Your task to perform on an android device: check battery use Image 0: 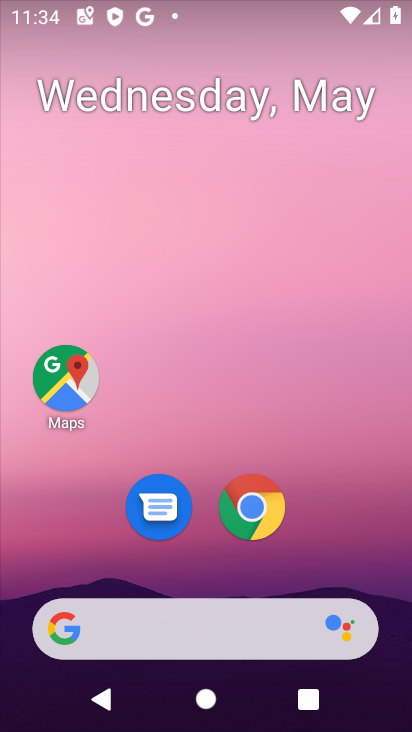
Step 0: press home button
Your task to perform on an android device: check battery use Image 1: 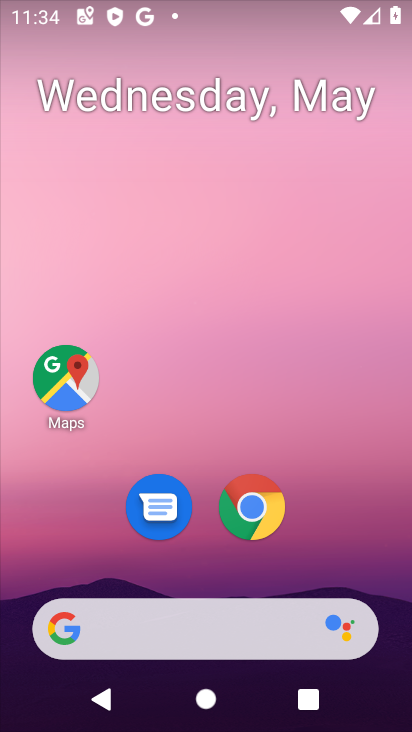
Step 1: drag from (375, 561) to (325, 133)
Your task to perform on an android device: check battery use Image 2: 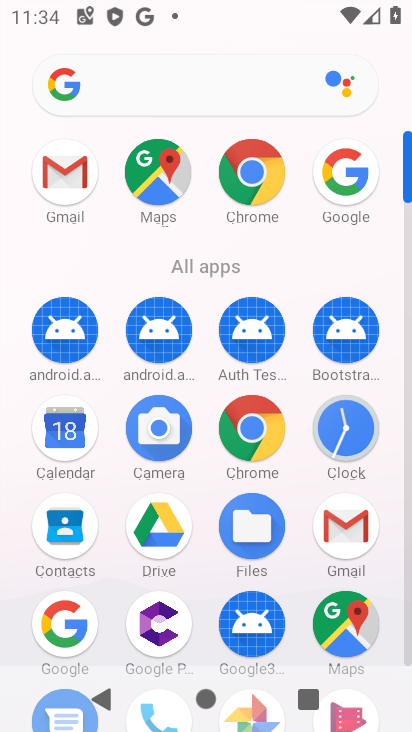
Step 2: click (410, 660)
Your task to perform on an android device: check battery use Image 3: 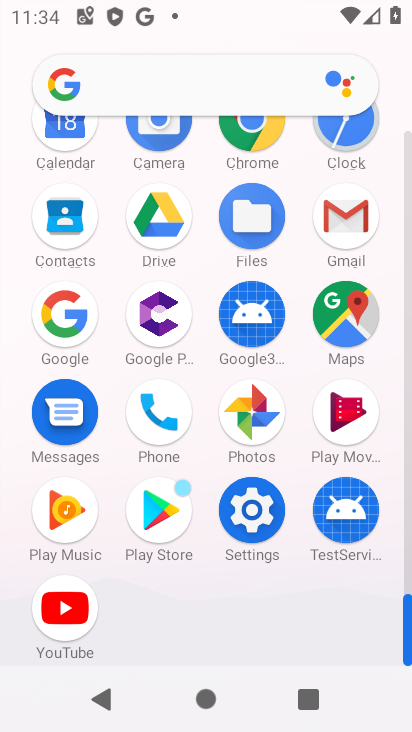
Step 3: click (233, 504)
Your task to perform on an android device: check battery use Image 4: 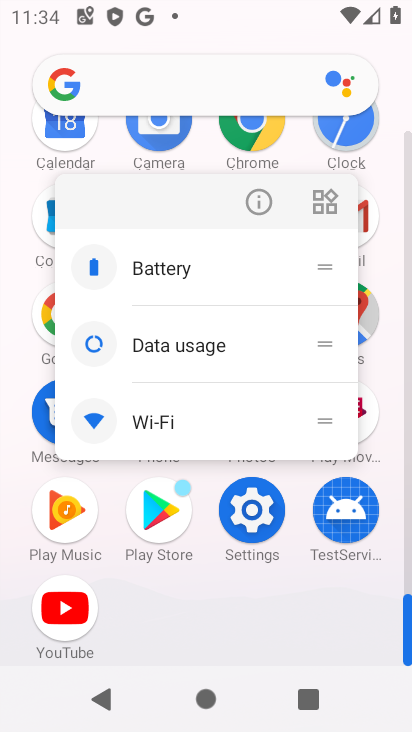
Step 4: click (233, 506)
Your task to perform on an android device: check battery use Image 5: 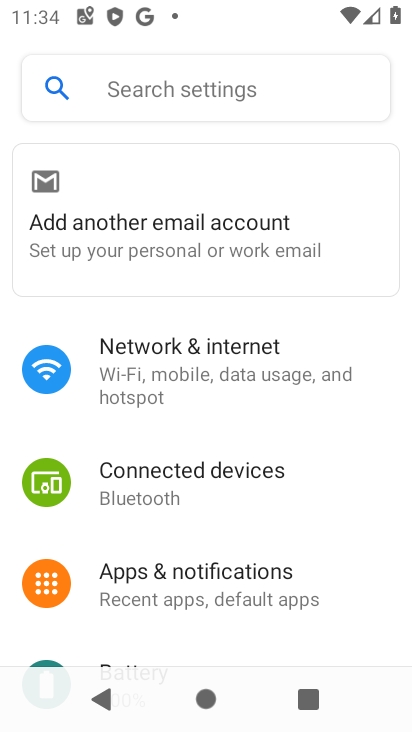
Step 5: drag from (236, 630) to (268, 298)
Your task to perform on an android device: check battery use Image 6: 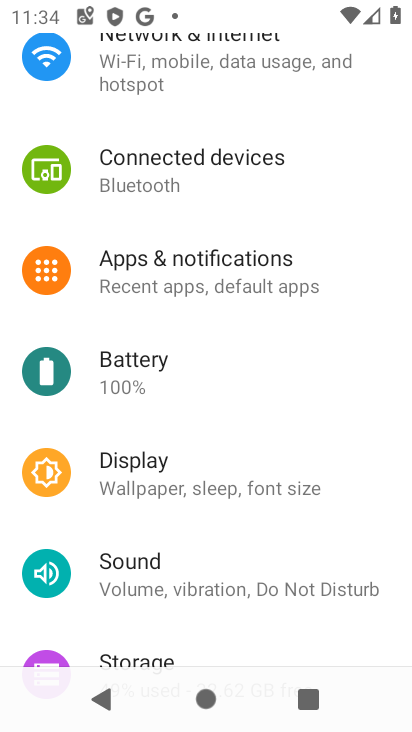
Step 6: click (151, 407)
Your task to perform on an android device: check battery use Image 7: 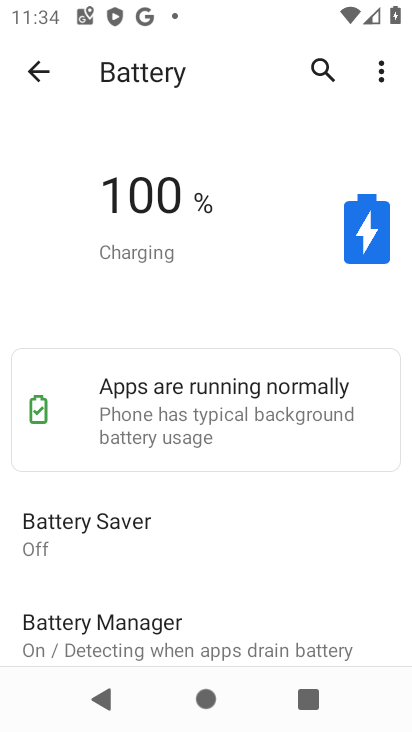
Step 7: task complete